Your task to perform on an android device: Open the calendar and show me this week's events? Image 0: 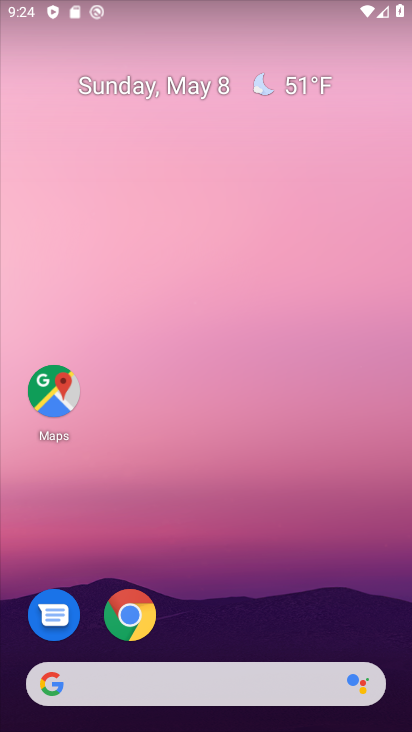
Step 0: drag from (215, 509) to (217, 176)
Your task to perform on an android device: Open the calendar and show me this week's events? Image 1: 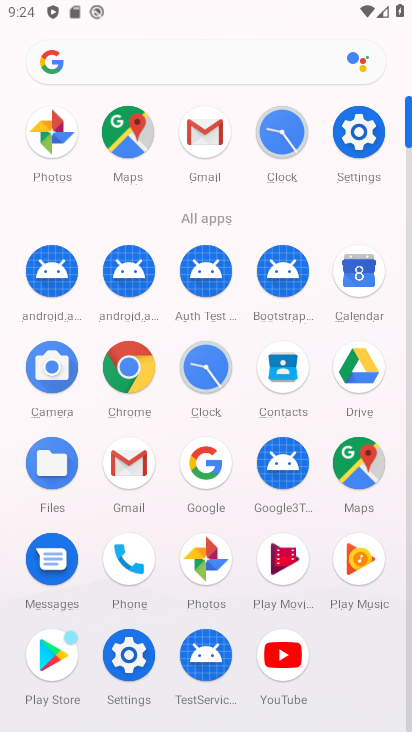
Step 1: click (354, 276)
Your task to perform on an android device: Open the calendar and show me this week's events? Image 2: 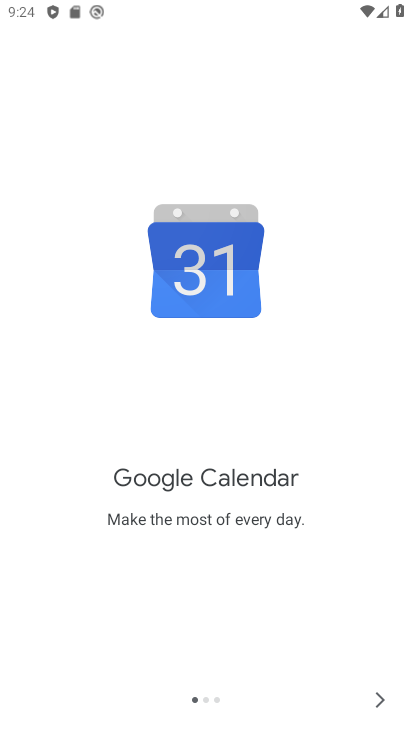
Step 2: click (369, 677)
Your task to perform on an android device: Open the calendar and show me this week's events? Image 3: 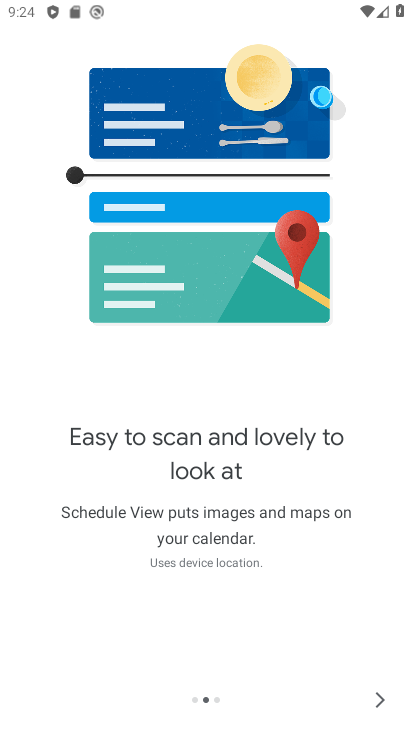
Step 3: click (371, 684)
Your task to perform on an android device: Open the calendar and show me this week's events? Image 4: 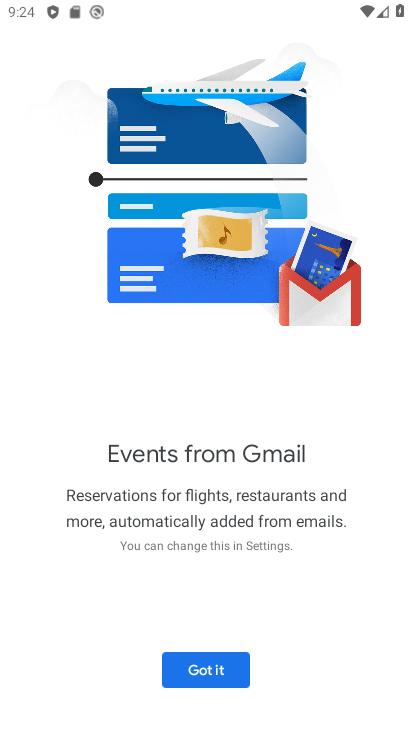
Step 4: click (172, 672)
Your task to perform on an android device: Open the calendar and show me this week's events? Image 5: 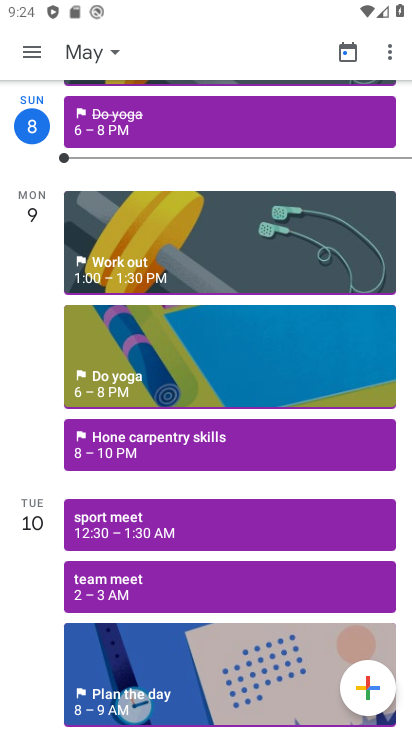
Step 5: click (111, 54)
Your task to perform on an android device: Open the calendar and show me this week's events? Image 6: 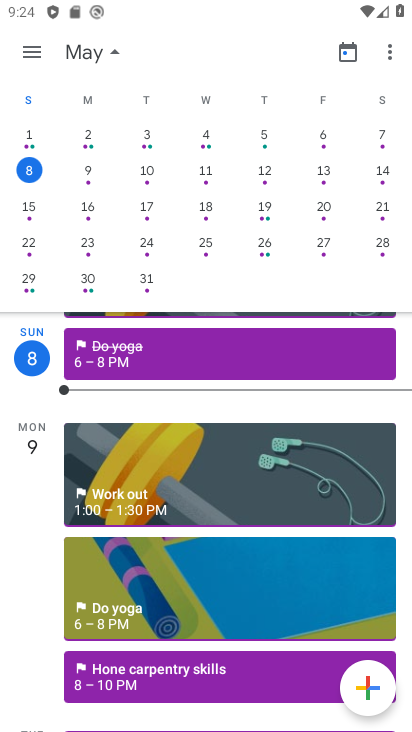
Step 6: click (28, 204)
Your task to perform on an android device: Open the calendar and show me this week's events? Image 7: 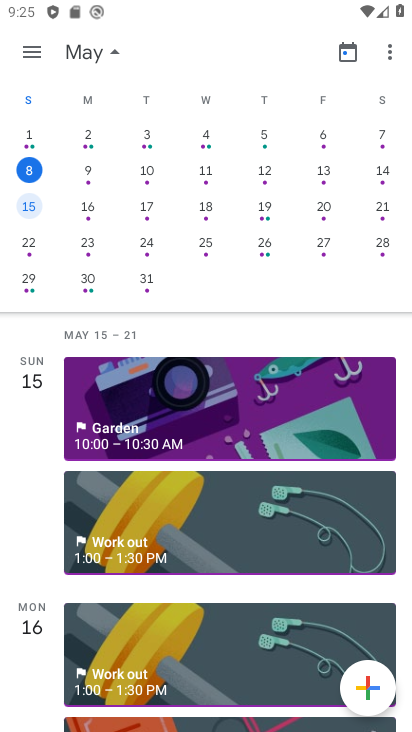
Step 7: click (335, 170)
Your task to perform on an android device: Open the calendar and show me this week's events? Image 8: 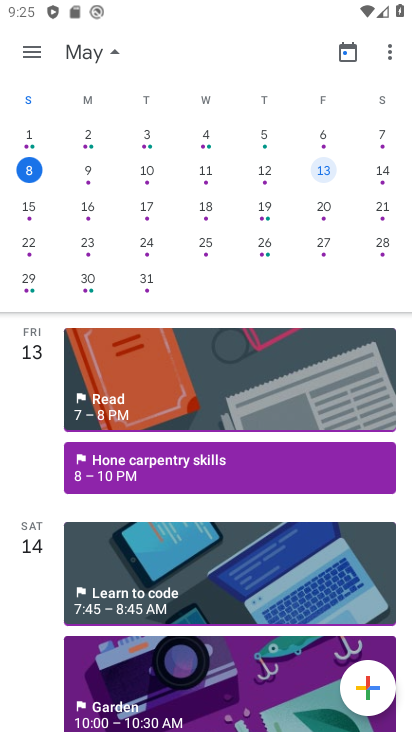
Step 8: click (382, 177)
Your task to perform on an android device: Open the calendar and show me this week's events? Image 9: 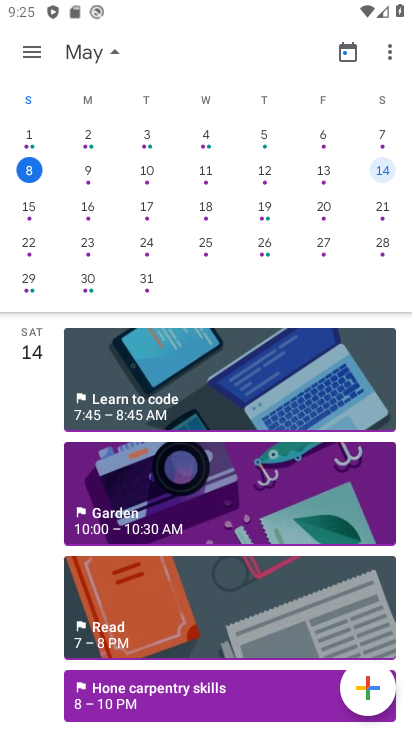
Step 9: click (256, 161)
Your task to perform on an android device: Open the calendar and show me this week's events? Image 10: 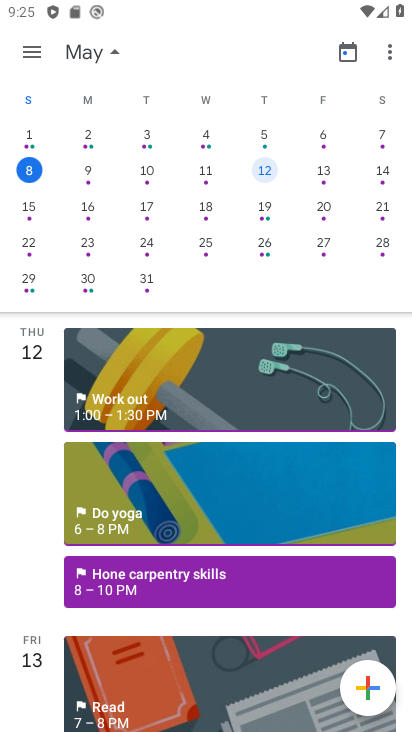
Step 10: task complete